Your task to perform on an android device: refresh tabs in the chrome app Image 0: 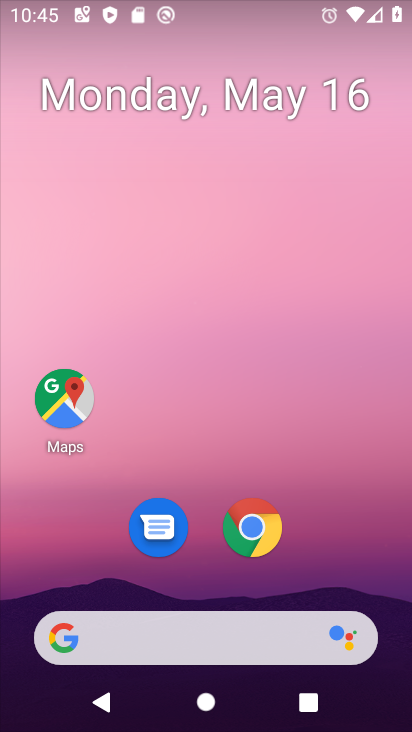
Step 0: click (257, 537)
Your task to perform on an android device: refresh tabs in the chrome app Image 1: 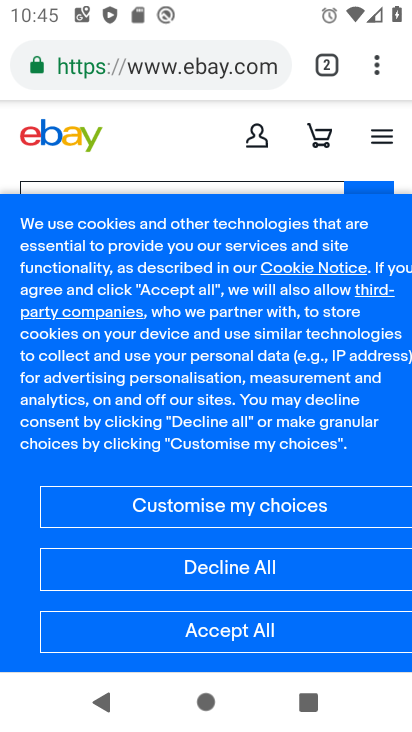
Step 1: click (372, 70)
Your task to perform on an android device: refresh tabs in the chrome app Image 2: 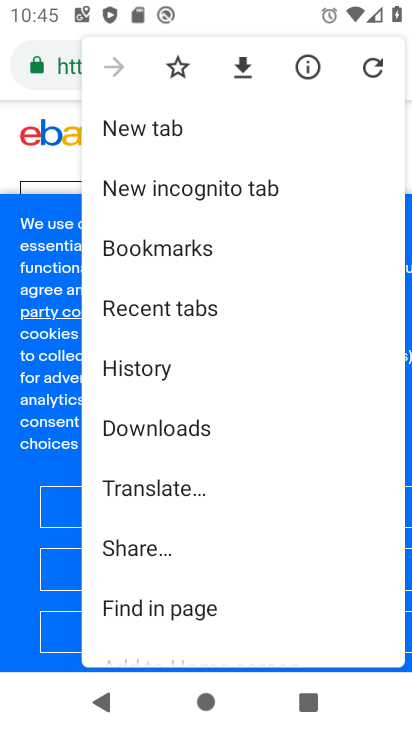
Step 2: click (368, 59)
Your task to perform on an android device: refresh tabs in the chrome app Image 3: 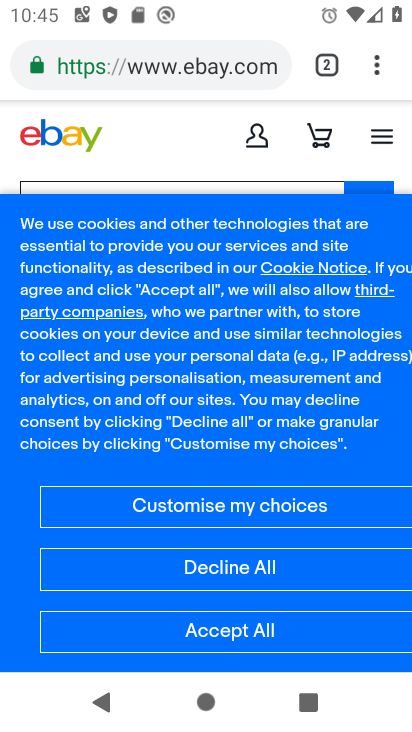
Step 3: task complete